Your task to perform on an android device: open a bookmark in the chrome app Image 0: 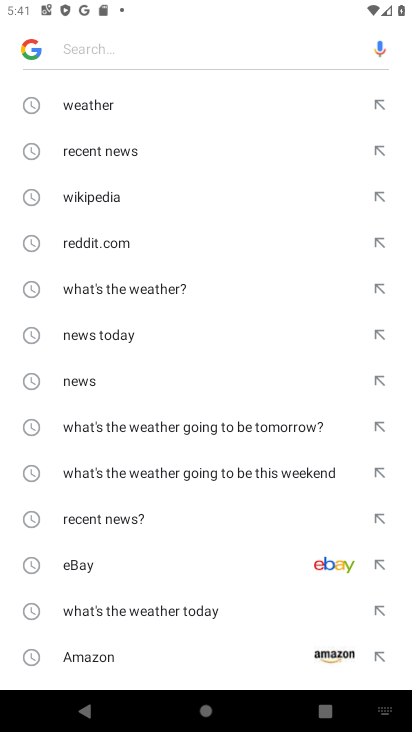
Step 0: click (127, 584)
Your task to perform on an android device: open a bookmark in the chrome app Image 1: 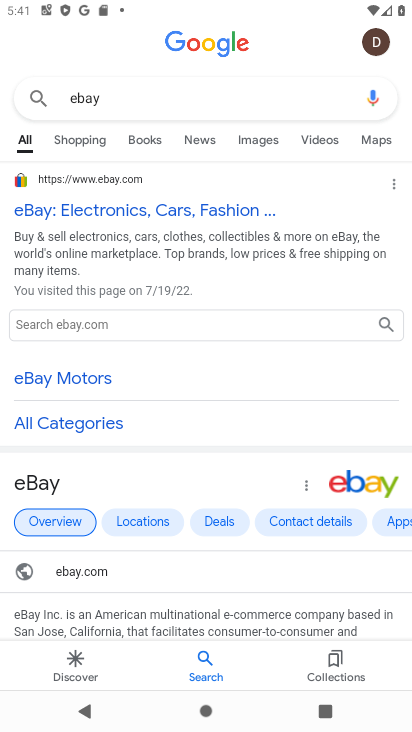
Step 1: press home button
Your task to perform on an android device: open a bookmark in the chrome app Image 2: 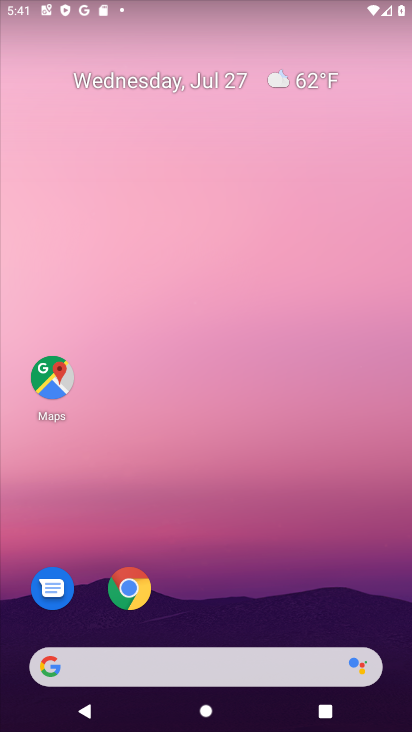
Step 2: click (128, 588)
Your task to perform on an android device: open a bookmark in the chrome app Image 3: 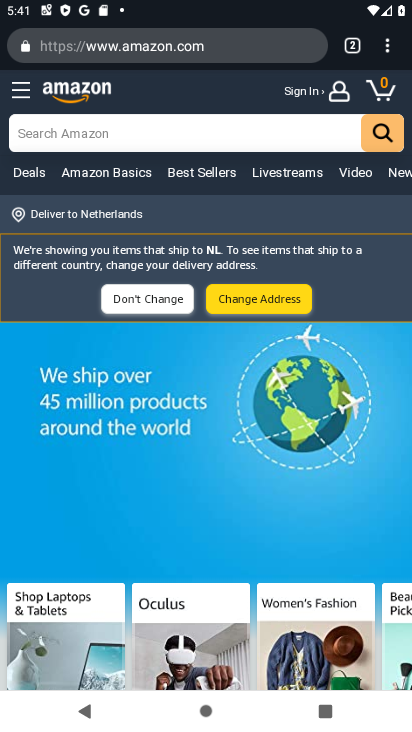
Step 3: click (387, 48)
Your task to perform on an android device: open a bookmark in the chrome app Image 4: 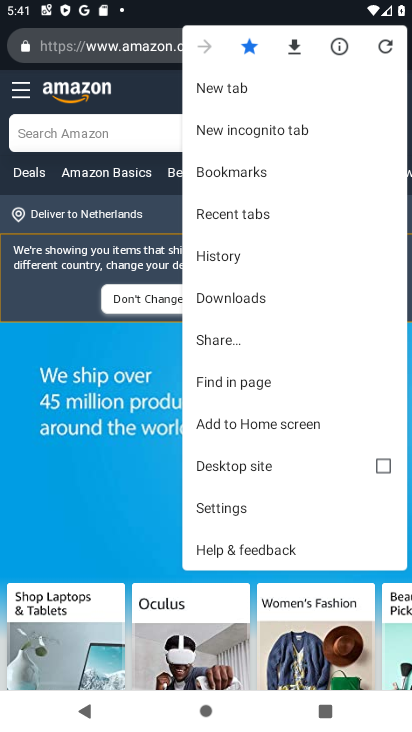
Step 4: click (225, 171)
Your task to perform on an android device: open a bookmark in the chrome app Image 5: 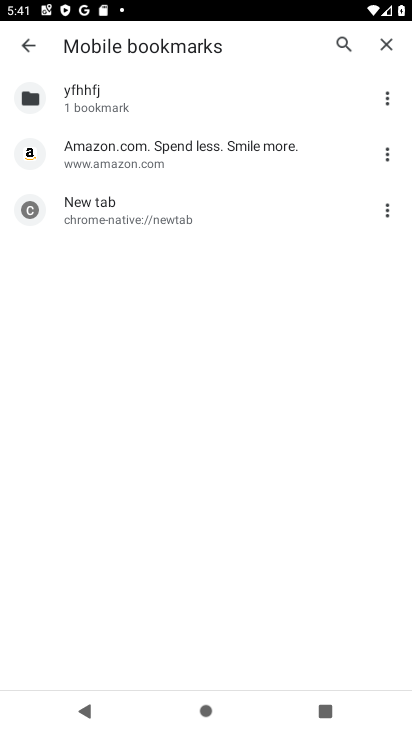
Step 5: click (69, 154)
Your task to perform on an android device: open a bookmark in the chrome app Image 6: 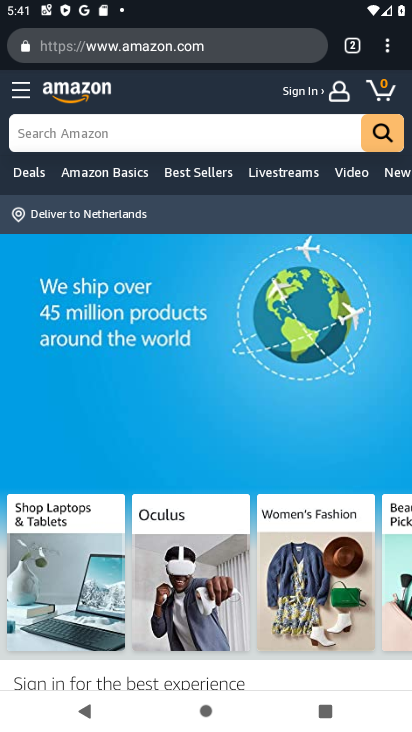
Step 6: task complete